Your task to perform on an android device: add a label to a message in the gmail app Image 0: 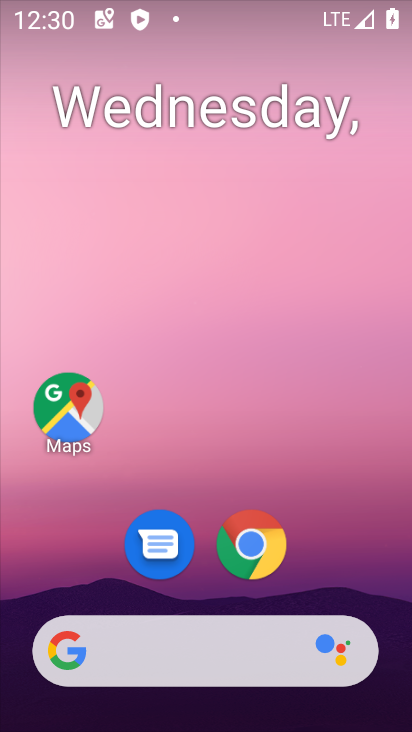
Step 0: drag from (397, 641) to (234, 17)
Your task to perform on an android device: add a label to a message in the gmail app Image 1: 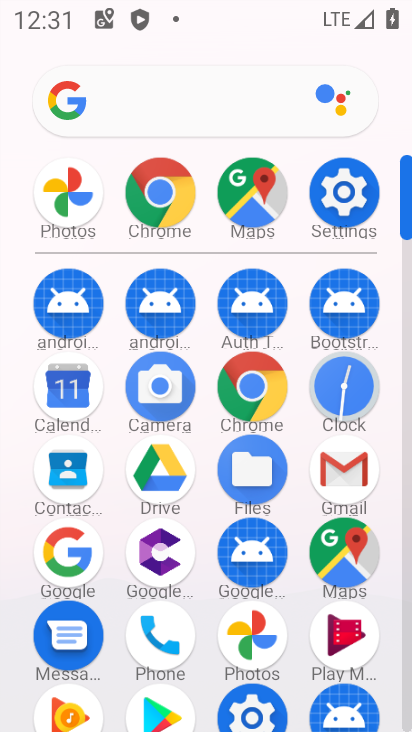
Step 1: click (339, 481)
Your task to perform on an android device: add a label to a message in the gmail app Image 2: 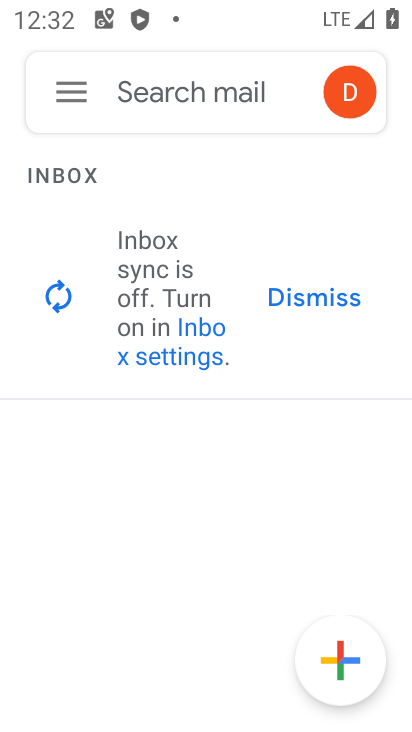
Step 2: task complete